Your task to perform on an android device: Go to Wikipedia Image 0: 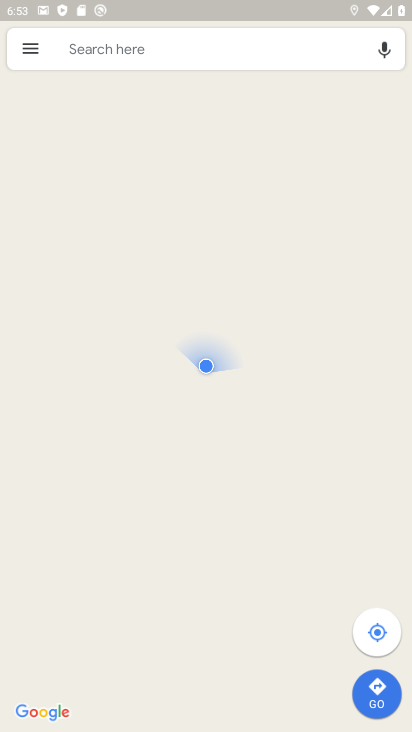
Step 0: press home button
Your task to perform on an android device: Go to Wikipedia Image 1: 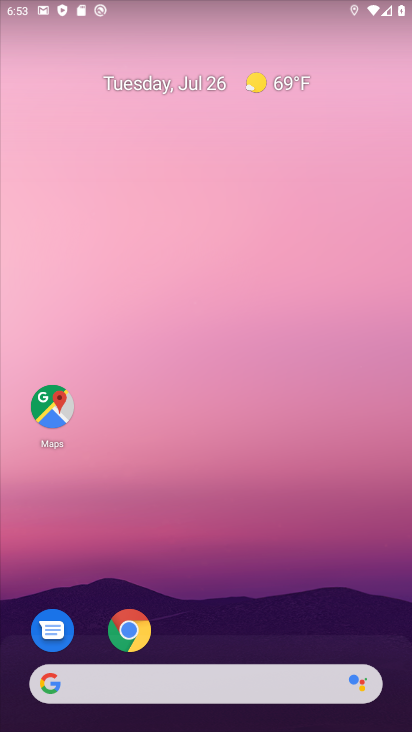
Step 1: drag from (251, 587) to (338, 2)
Your task to perform on an android device: Go to Wikipedia Image 2: 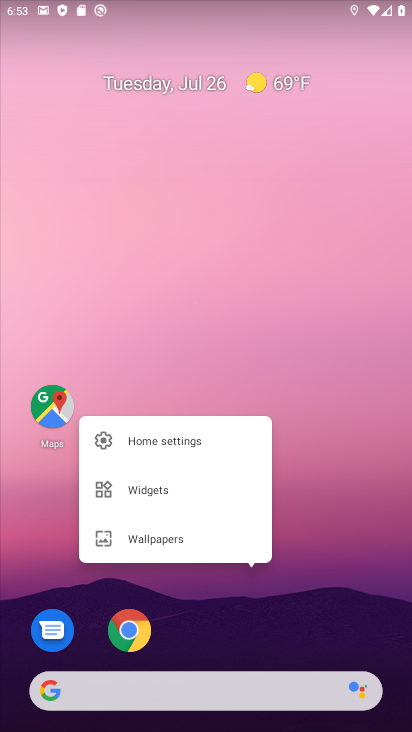
Step 2: click (293, 487)
Your task to perform on an android device: Go to Wikipedia Image 3: 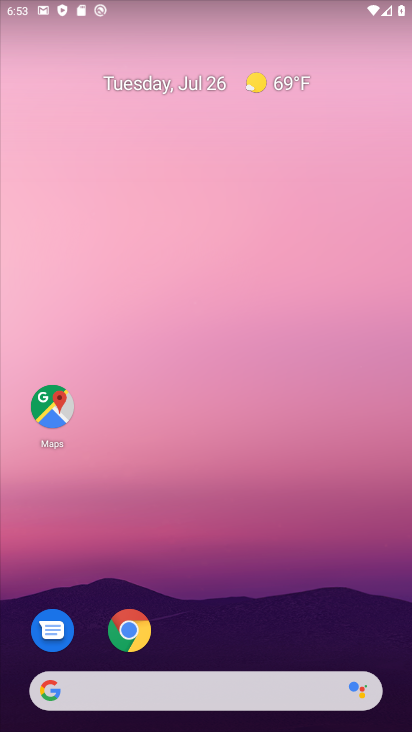
Step 3: click (293, 486)
Your task to perform on an android device: Go to Wikipedia Image 4: 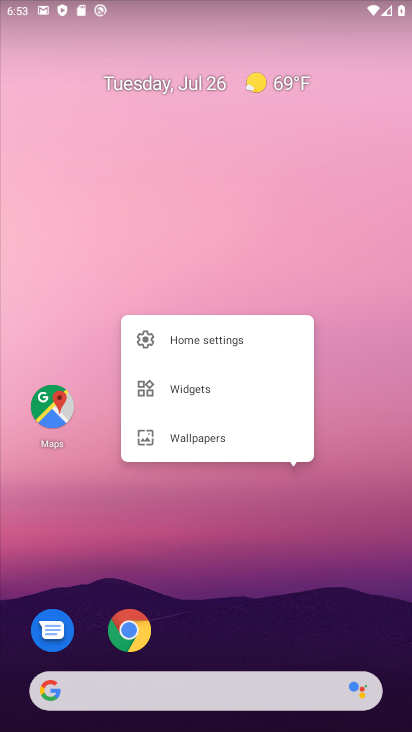
Step 4: drag from (251, 596) to (249, 32)
Your task to perform on an android device: Go to Wikipedia Image 5: 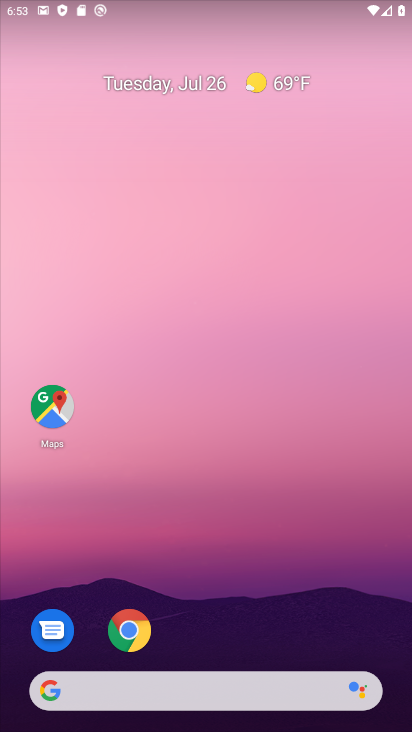
Step 5: drag from (209, 337) to (227, 9)
Your task to perform on an android device: Go to Wikipedia Image 6: 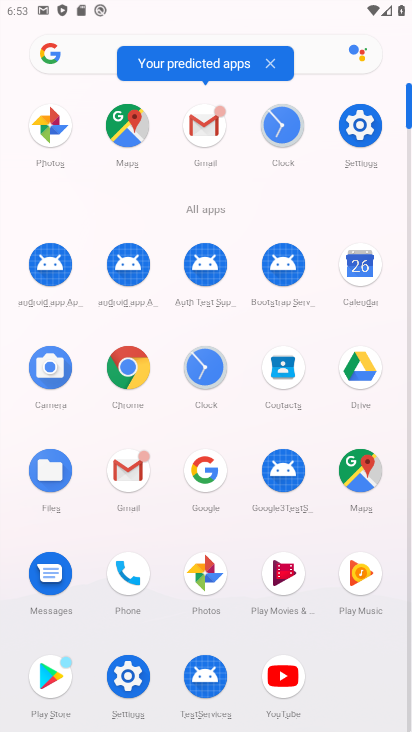
Step 6: click (135, 371)
Your task to perform on an android device: Go to Wikipedia Image 7: 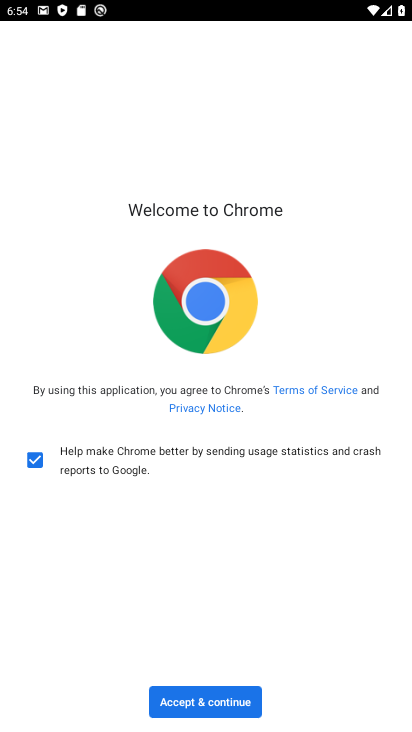
Step 7: click (210, 708)
Your task to perform on an android device: Go to Wikipedia Image 8: 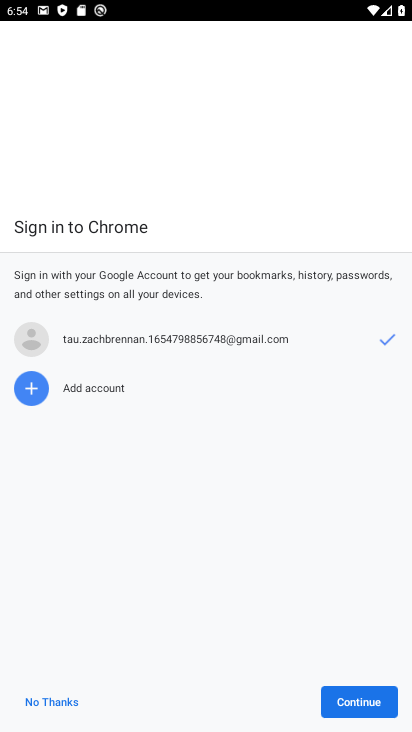
Step 8: click (339, 703)
Your task to perform on an android device: Go to Wikipedia Image 9: 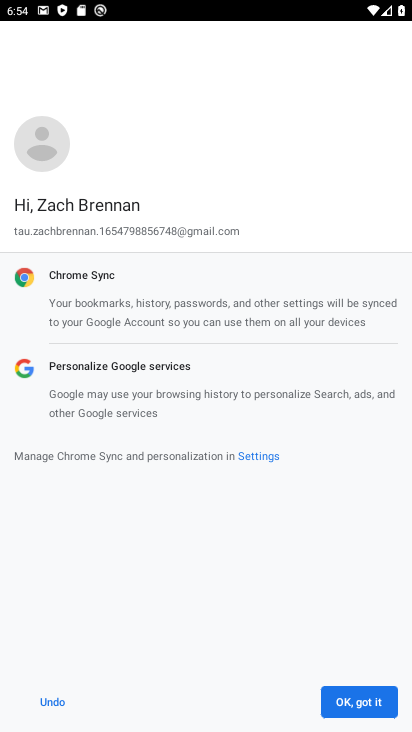
Step 9: click (339, 702)
Your task to perform on an android device: Go to Wikipedia Image 10: 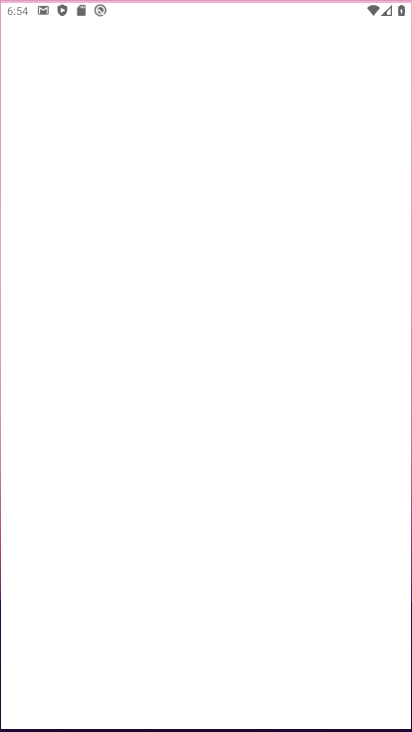
Step 10: click (339, 702)
Your task to perform on an android device: Go to Wikipedia Image 11: 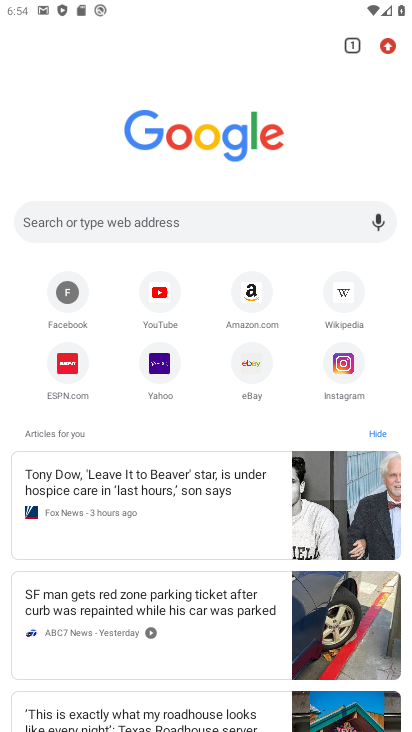
Step 11: click (347, 310)
Your task to perform on an android device: Go to Wikipedia Image 12: 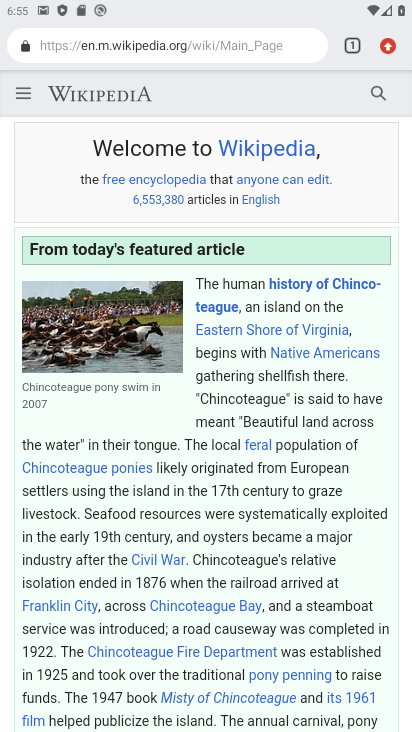
Step 12: task complete